Your task to perform on an android device: Open Chrome and go to settings Image 0: 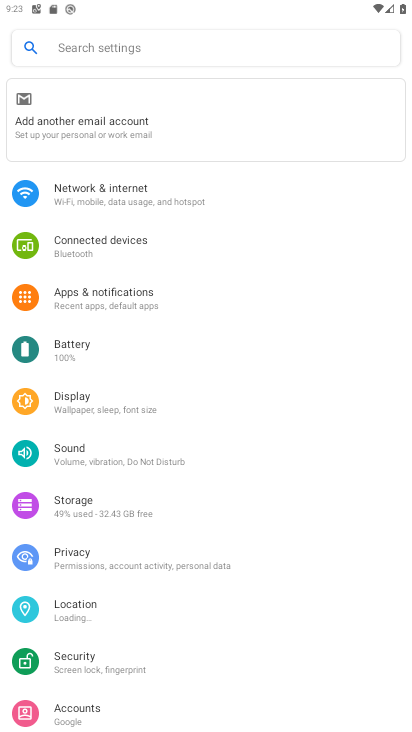
Step 0: press home button
Your task to perform on an android device: Open Chrome and go to settings Image 1: 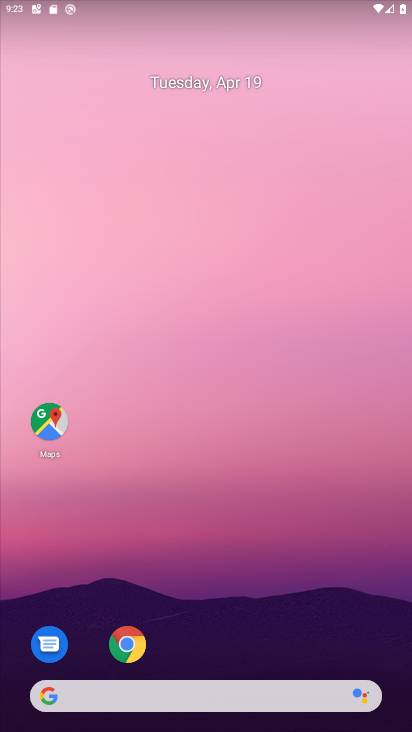
Step 1: drag from (238, 624) to (227, 93)
Your task to perform on an android device: Open Chrome and go to settings Image 2: 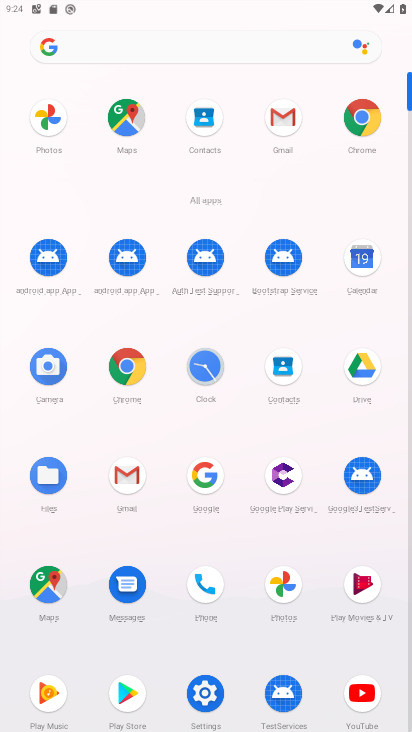
Step 2: click (364, 112)
Your task to perform on an android device: Open Chrome and go to settings Image 3: 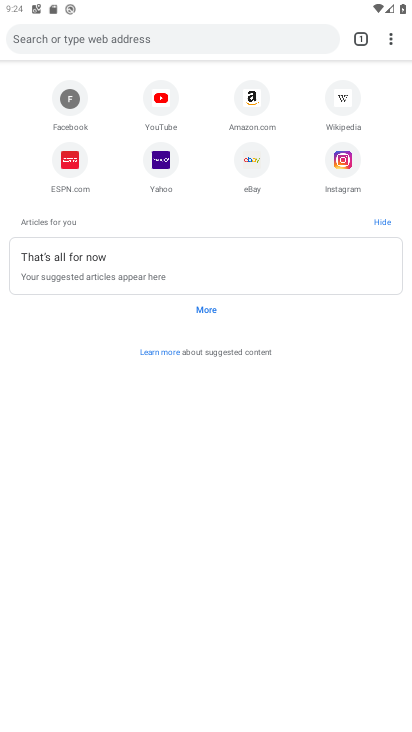
Step 3: click (391, 35)
Your task to perform on an android device: Open Chrome and go to settings Image 4: 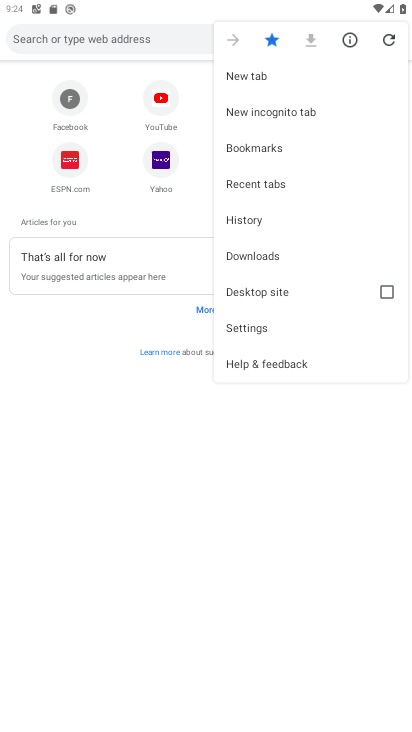
Step 4: click (265, 330)
Your task to perform on an android device: Open Chrome and go to settings Image 5: 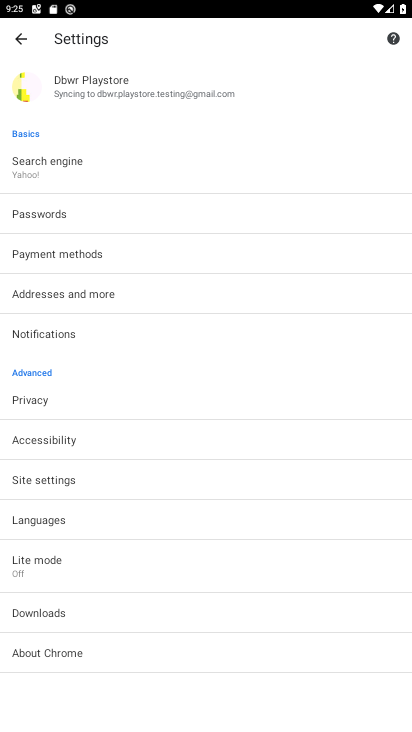
Step 5: task complete